Your task to perform on an android device: toggle data saver in the chrome app Image 0: 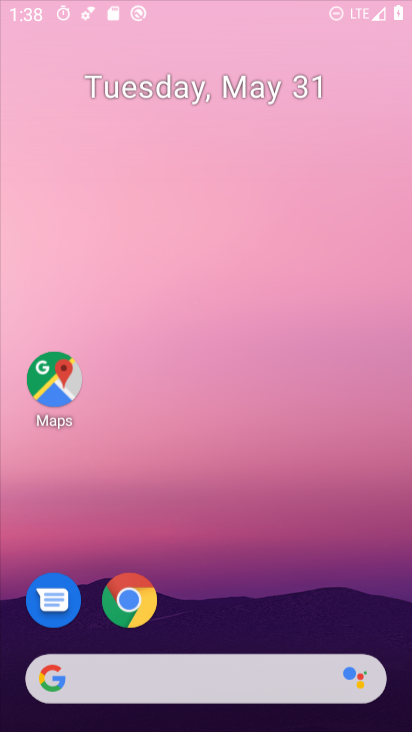
Step 0: drag from (241, 718) to (241, 579)
Your task to perform on an android device: toggle data saver in the chrome app Image 1: 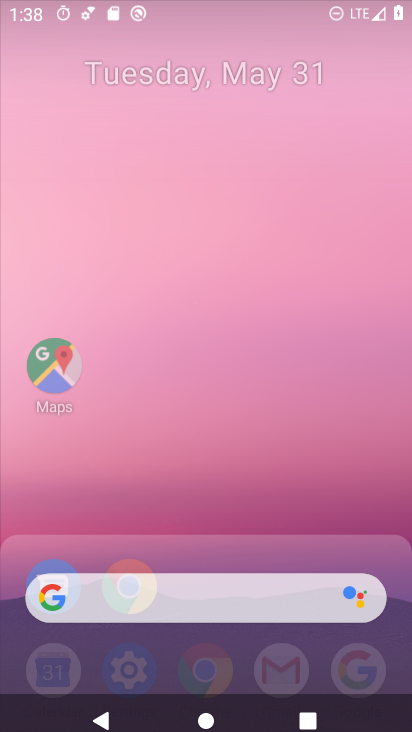
Step 1: click (243, 144)
Your task to perform on an android device: toggle data saver in the chrome app Image 2: 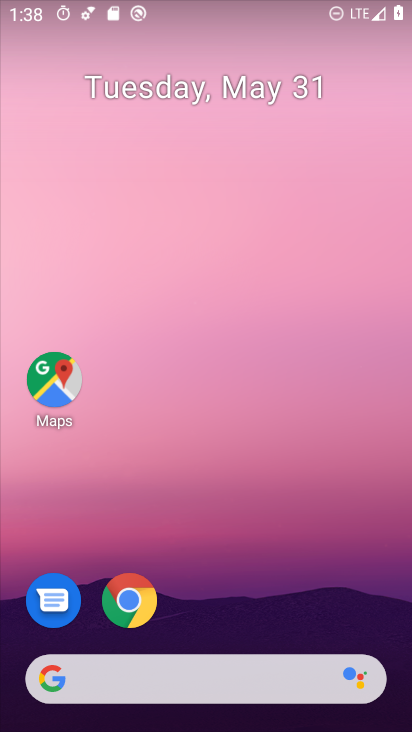
Step 2: click (125, 595)
Your task to perform on an android device: toggle data saver in the chrome app Image 3: 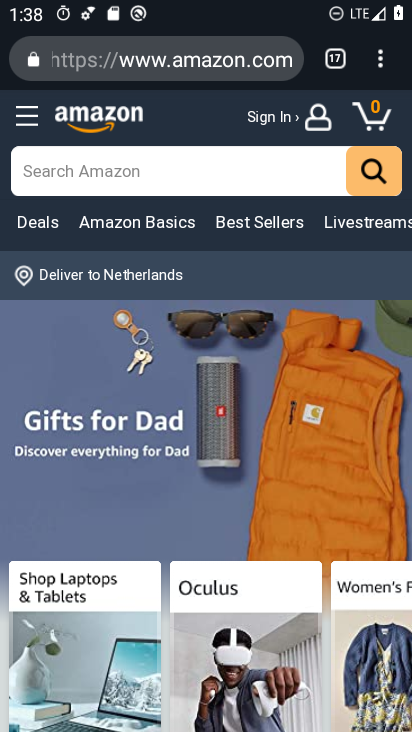
Step 3: click (383, 68)
Your task to perform on an android device: toggle data saver in the chrome app Image 4: 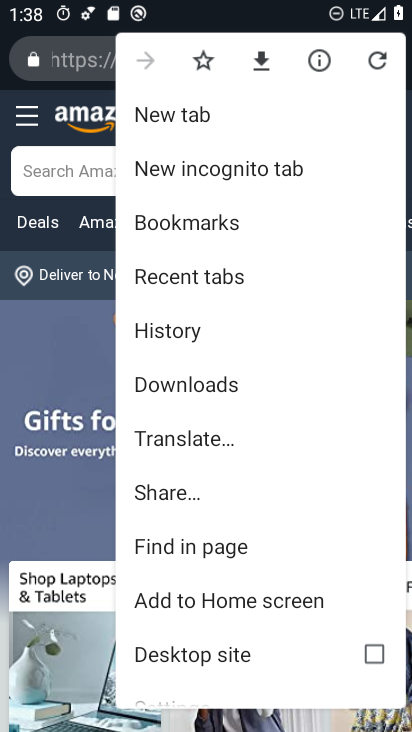
Step 4: drag from (187, 646) to (189, 261)
Your task to perform on an android device: toggle data saver in the chrome app Image 5: 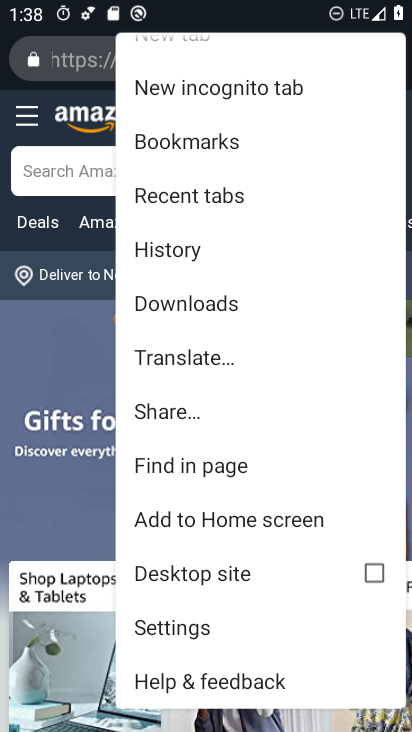
Step 5: click (173, 625)
Your task to perform on an android device: toggle data saver in the chrome app Image 6: 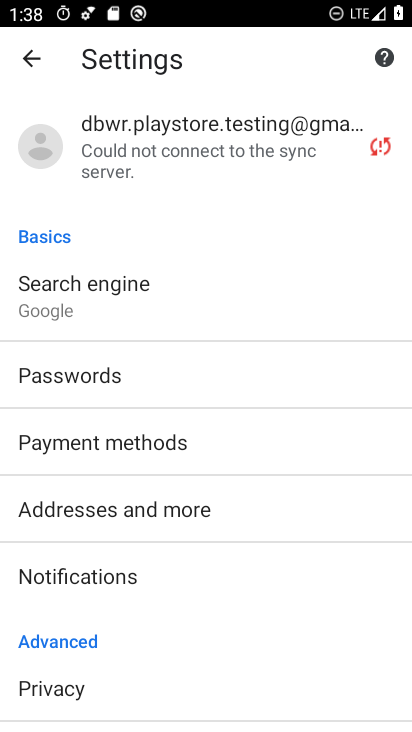
Step 6: drag from (135, 703) to (147, 526)
Your task to perform on an android device: toggle data saver in the chrome app Image 7: 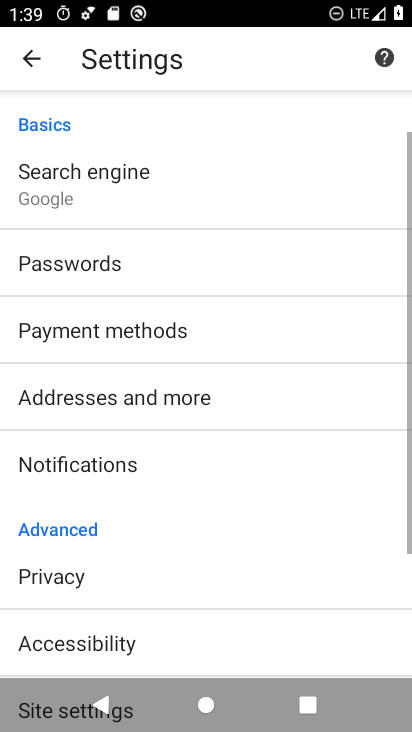
Step 7: click (147, 434)
Your task to perform on an android device: toggle data saver in the chrome app Image 8: 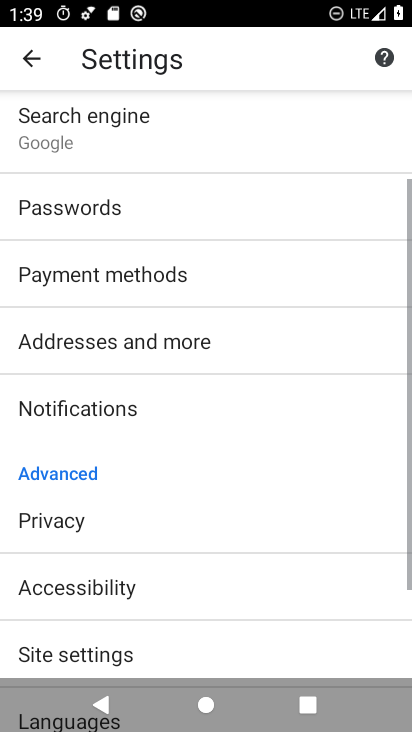
Step 8: click (147, 324)
Your task to perform on an android device: toggle data saver in the chrome app Image 9: 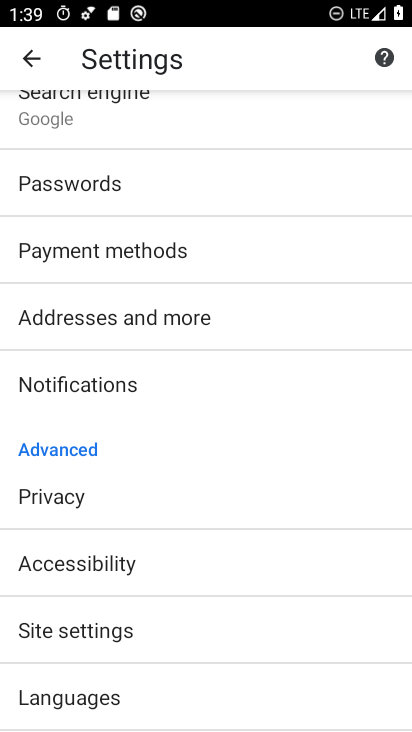
Step 9: drag from (119, 697) to (120, 393)
Your task to perform on an android device: toggle data saver in the chrome app Image 10: 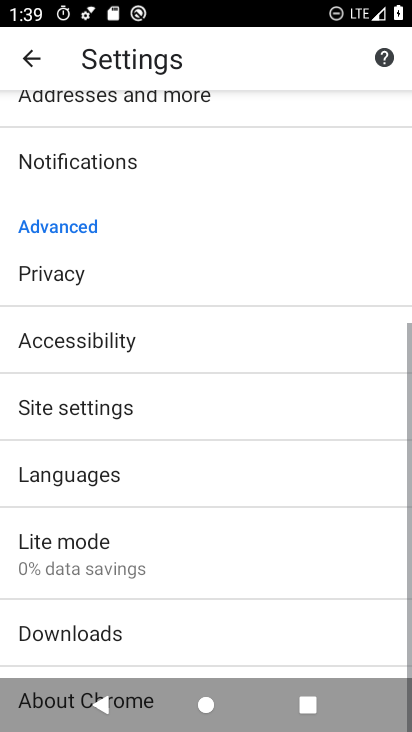
Step 10: drag from (120, 240) to (120, 201)
Your task to perform on an android device: toggle data saver in the chrome app Image 11: 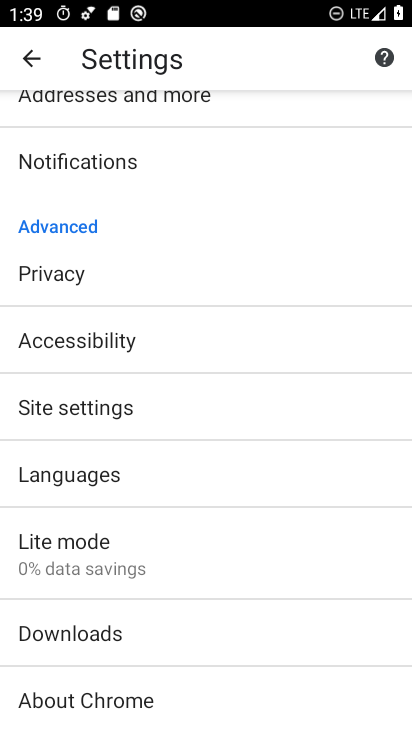
Step 11: click (76, 541)
Your task to perform on an android device: toggle data saver in the chrome app Image 12: 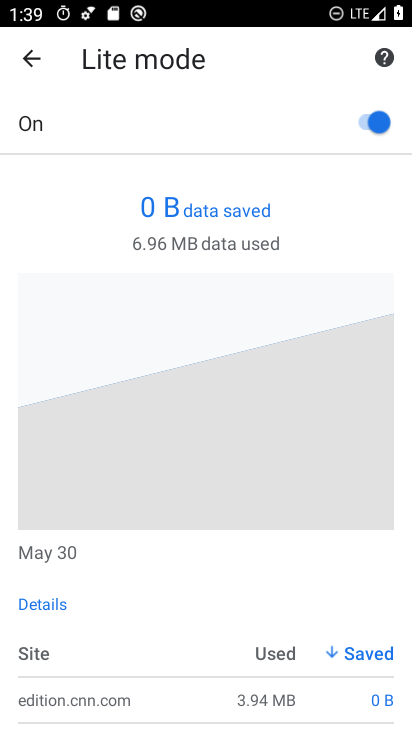
Step 12: click (365, 122)
Your task to perform on an android device: toggle data saver in the chrome app Image 13: 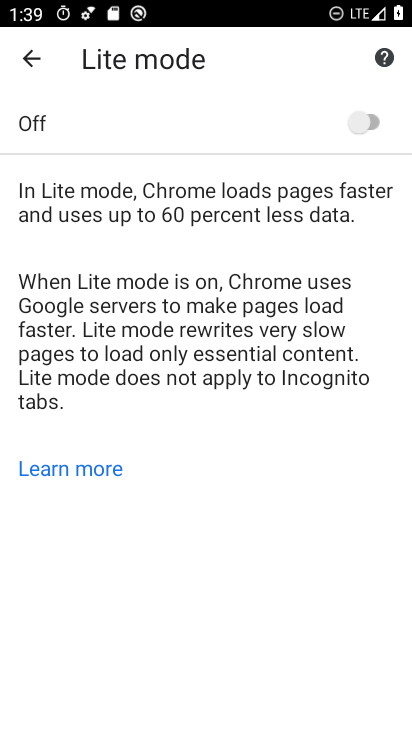
Step 13: task complete